Your task to perform on an android device: turn smart compose on in the gmail app Image 0: 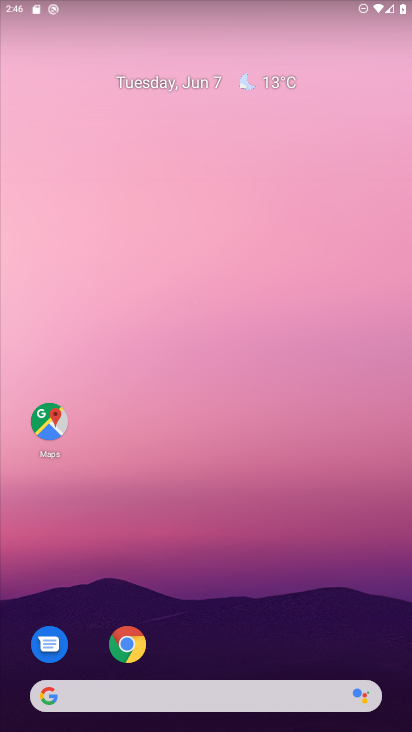
Step 0: press home button
Your task to perform on an android device: turn smart compose on in the gmail app Image 1: 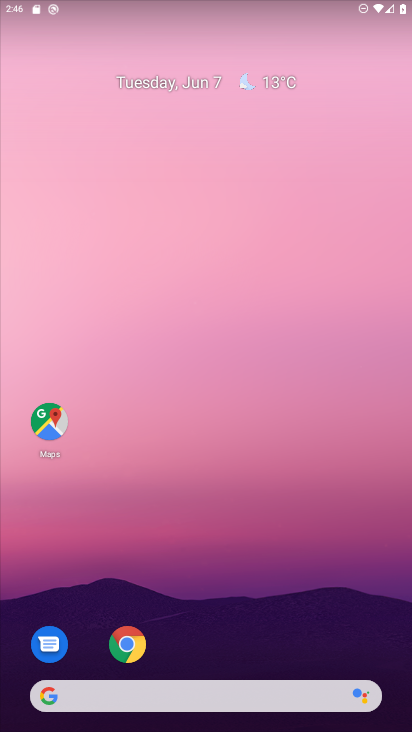
Step 1: drag from (221, 665) to (222, 127)
Your task to perform on an android device: turn smart compose on in the gmail app Image 2: 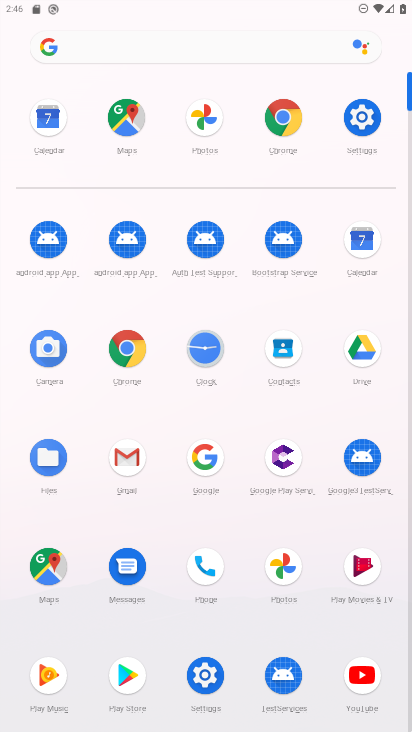
Step 2: click (123, 450)
Your task to perform on an android device: turn smart compose on in the gmail app Image 3: 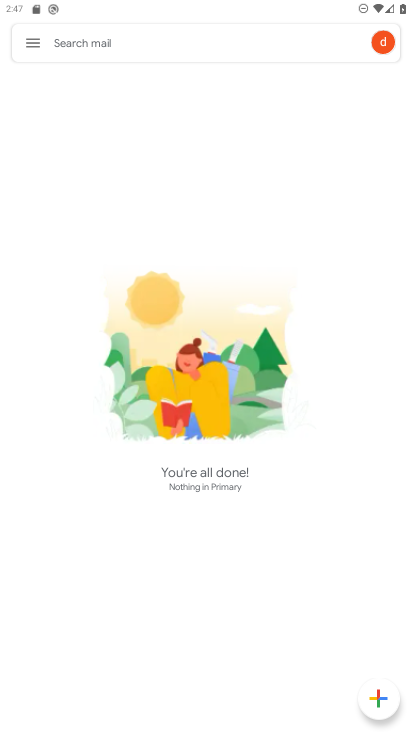
Step 3: click (33, 40)
Your task to perform on an android device: turn smart compose on in the gmail app Image 4: 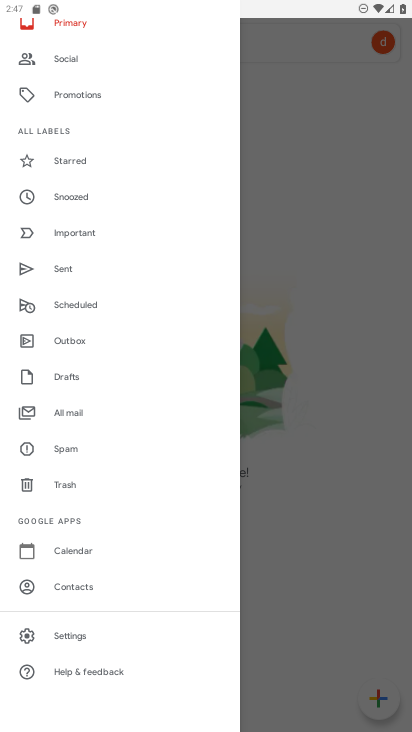
Step 4: click (94, 624)
Your task to perform on an android device: turn smart compose on in the gmail app Image 5: 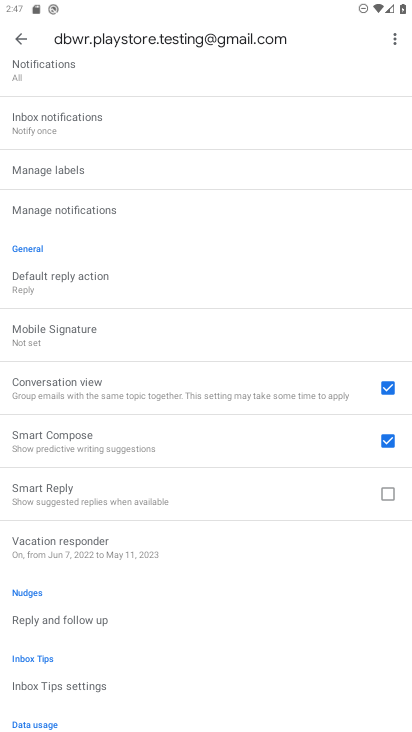
Step 5: task complete